Your task to perform on an android device: Search for sushi restaurants on Maps Image 0: 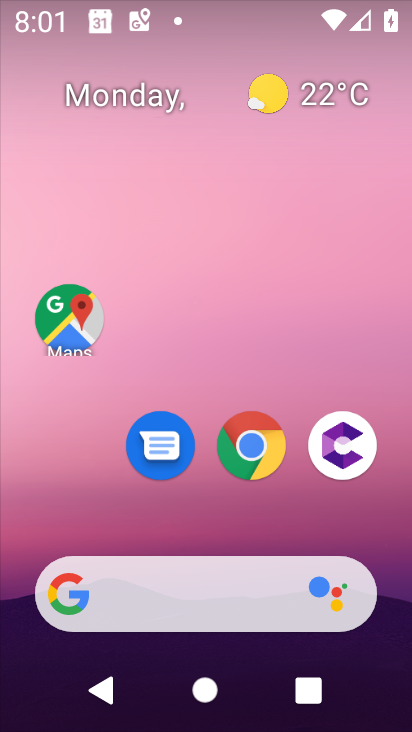
Step 0: press home button
Your task to perform on an android device: Search for sushi restaurants on Maps Image 1: 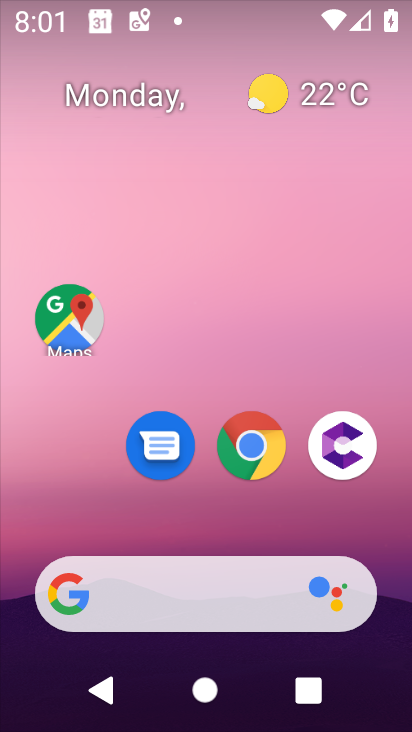
Step 1: click (65, 329)
Your task to perform on an android device: Search for sushi restaurants on Maps Image 2: 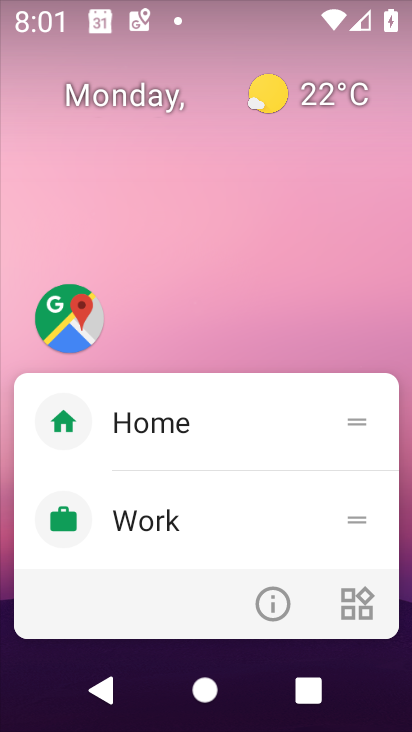
Step 2: click (66, 329)
Your task to perform on an android device: Search for sushi restaurants on Maps Image 3: 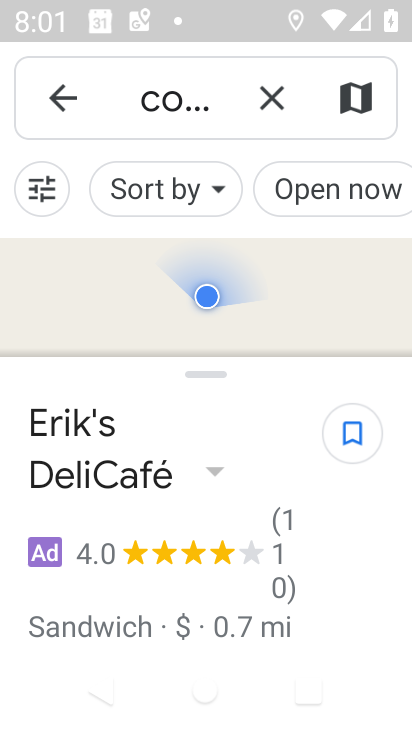
Step 3: click (280, 96)
Your task to perform on an android device: Search for sushi restaurants on Maps Image 4: 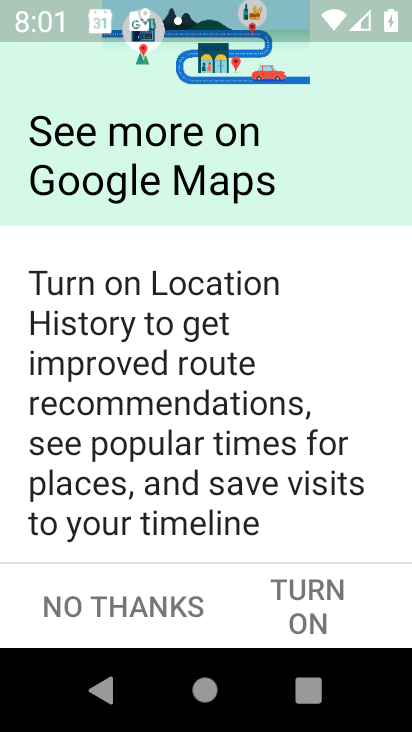
Step 4: click (301, 600)
Your task to perform on an android device: Search for sushi restaurants on Maps Image 5: 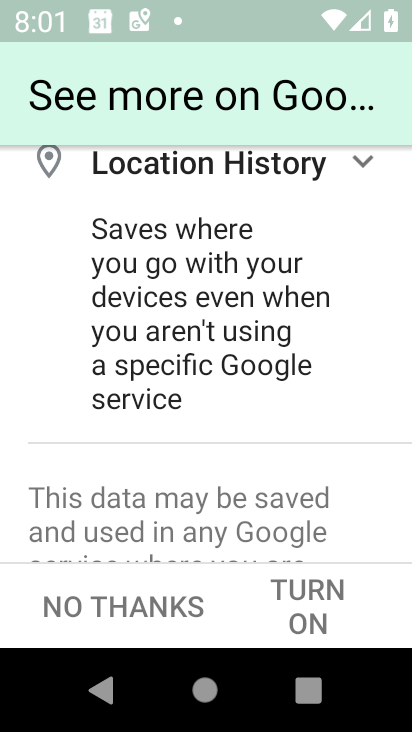
Step 5: click (127, 606)
Your task to perform on an android device: Search for sushi restaurants on Maps Image 6: 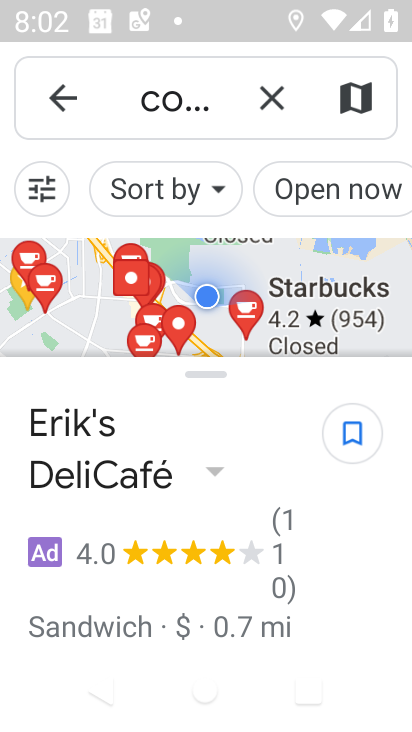
Step 6: click (275, 107)
Your task to perform on an android device: Search for sushi restaurants on Maps Image 7: 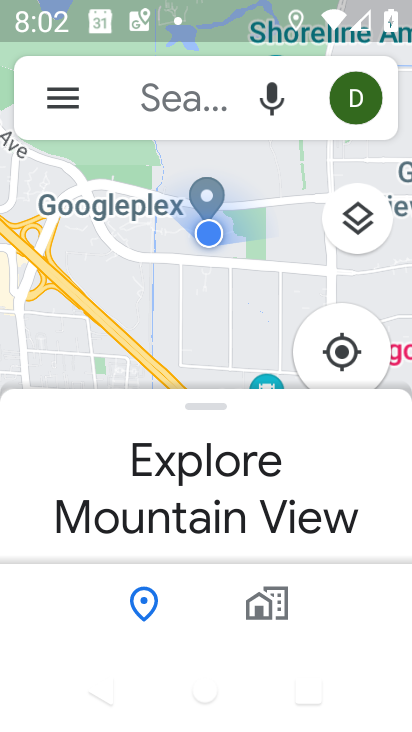
Step 7: click (120, 101)
Your task to perform on an android device: Search for sushi restaurants on Maps Image 8: 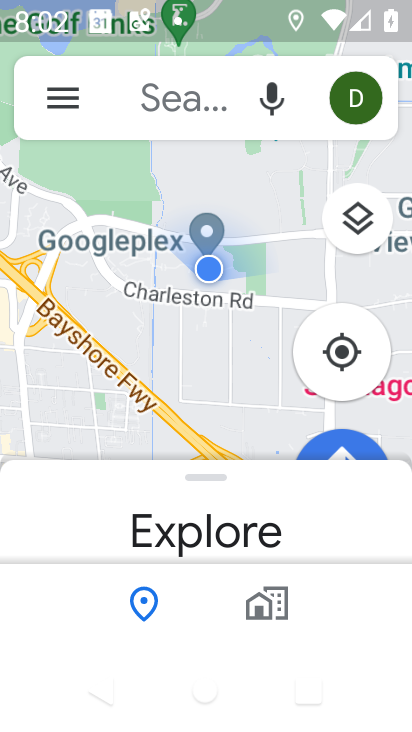
Step 8: click (156, 96)
Your task to perform on an android device: Search for sushi restaurants on Maps Image 9: 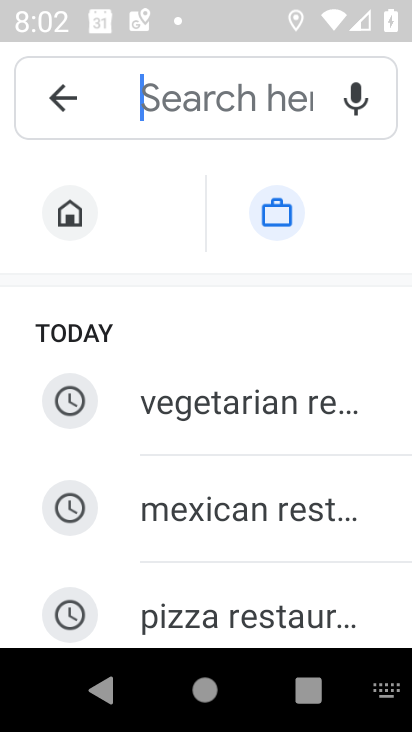
Step 9: type "sushi restaurants"
Your task to perform on an android device: Search for sushi restaurants on Maps Image 10: 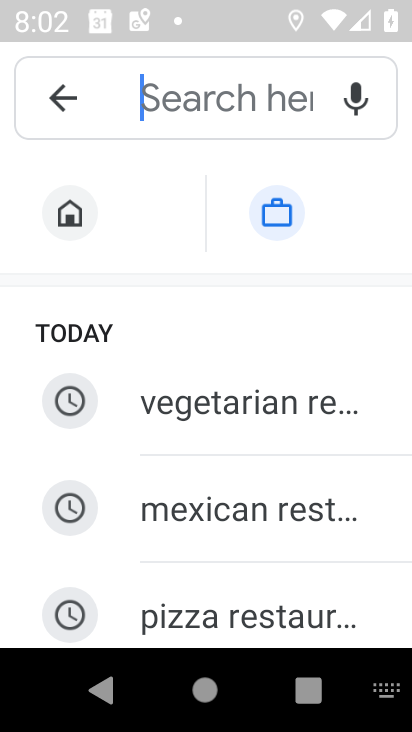
Step 10: click (228, 102)
Your task to perform on an android device: Search for sushi restaurants on Maps Image 11: 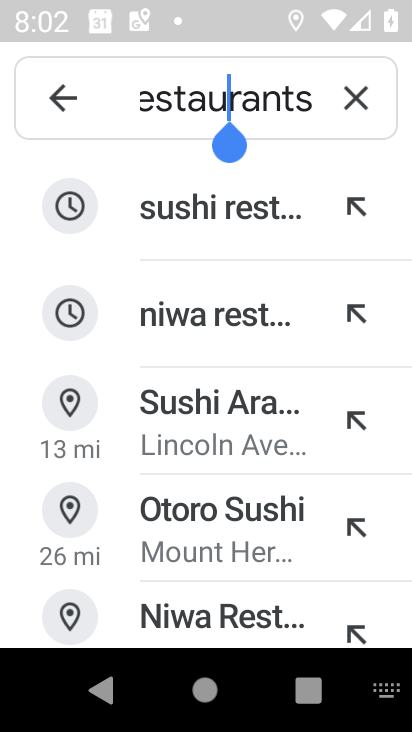
Step 11: click (227, 216)
Your task to perform on an android device: Search for sushi restaurants on Maps Image 12: 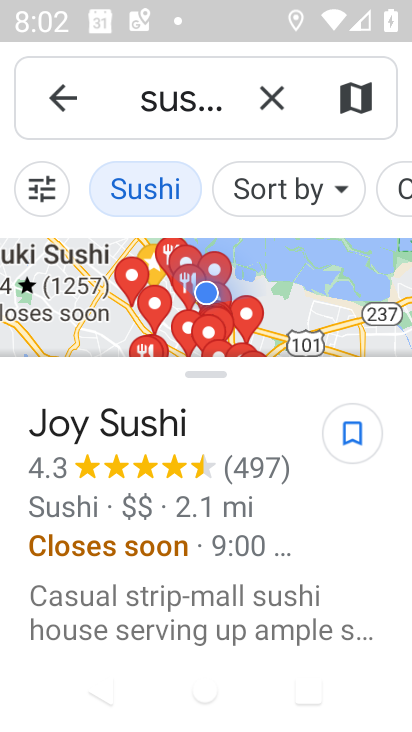
Step 12: task complete